Your task to perform on an android device: Search for rayovac triple a on bestbuy, select the first entry, and add it to the cart. Image 0: 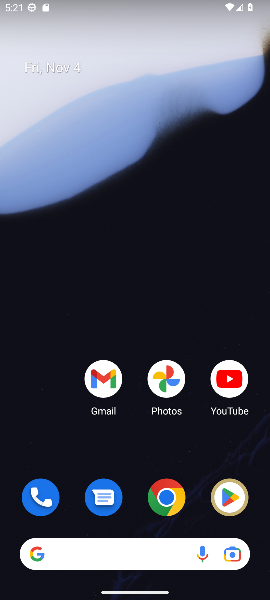
Step 0: click (167, 508)
Your task to perform on an android device: Search for rayovac triple a on bestbuy, select the first entry, and add it to the cart. Image 1: 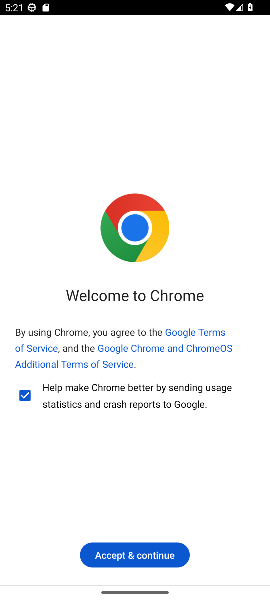
Step 1: click (131, 561)
Your task to perform on an android device: Search for rayovac triple a on bestbuy, select the first entry, and add it to the cart. Image 2: 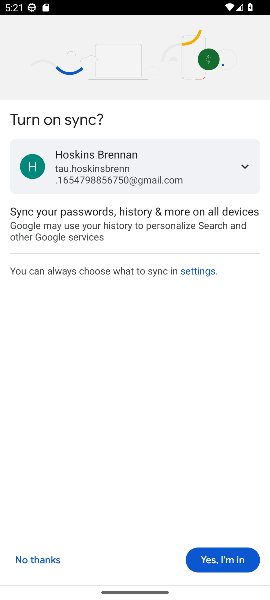
Step 2: click (210, 561)
Your task to perform on an android device: Search for rayovac triple a on bestbuy, select the first entry, and add it to the cart. Image 3: 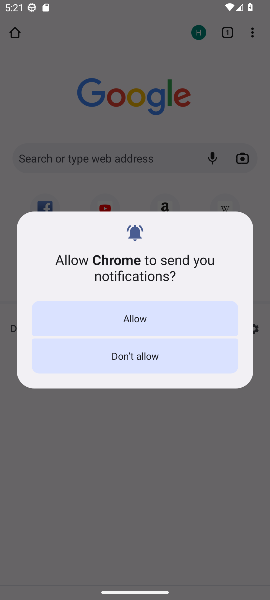
Step 3: click (117, 360)
Your task to perform on an android device: Search for rayovac triple a on bestbuy, select the first entry, and add it to the cart. Image 4: 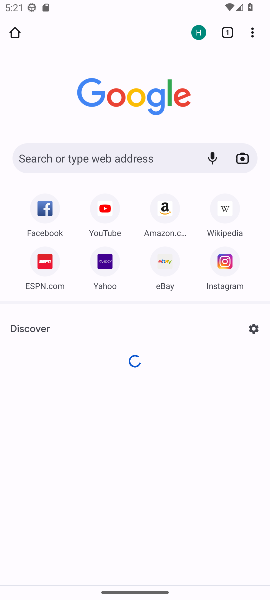
Step 4: click (90, 166)
Your task to perform on an android device: Search for rayovac triple a on bestbuy, select the first entry, and add it to the cart. Image 5: 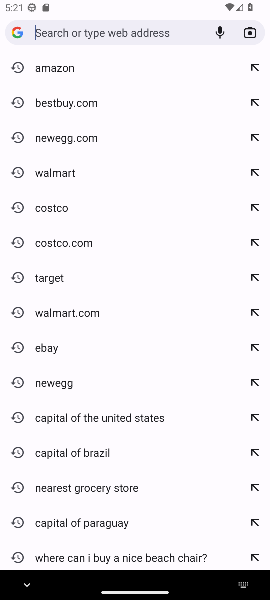
Step 5: click (57, 107)
Your task to perform on an android device: Search for rayovac triple a on bestbuy, select the first entry, and add it to the cart. Image 6: 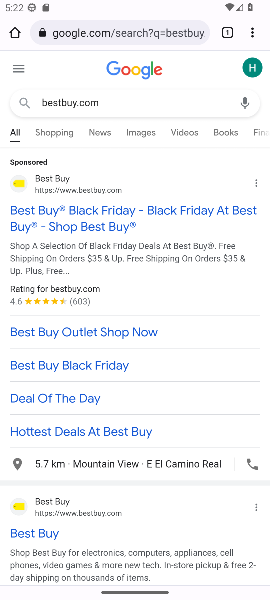
Step 6: drag from (115, 314) to (125, 192)
Your task to perform on an android device: Search for rayovac triple a on bestbuy, select the first entry, and add it to the cart. Image 7: 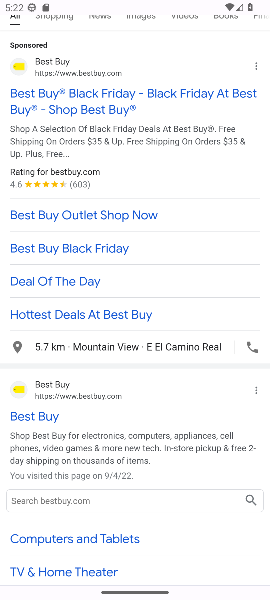
Step 7: click (20, 462)
Your task to perform on an android device: Search for rayovac triple a on bestbuy, select the first entry, and add it to the cart. Image 8: 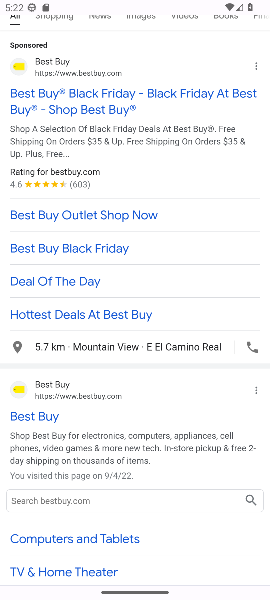
Step 8: click (55, 392)
Your task to perform on an android device: Search for rayovac triple a on bestbuy, select the first entry, and add it to the cart. Image 9: 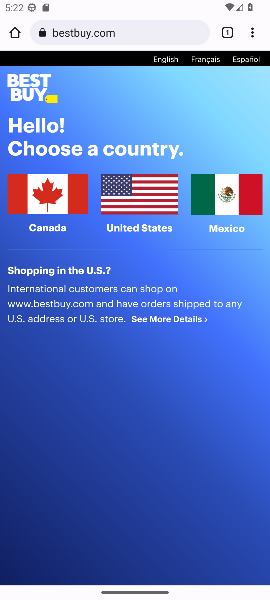
Step 9: click (158, 197)
Your task to perform on an android device: Search for rayovac triple a on bestbuy, select the first entry, and add it to the cart. Image 10: 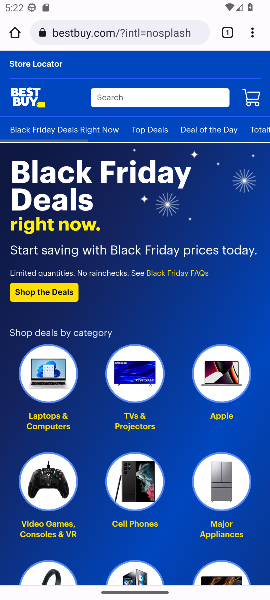
Step 10: click (136, 96)
Your task to perform on an android device: Search for rayovac triple a on bestbuy, select the first entry, and add it to the cart. Image 11: 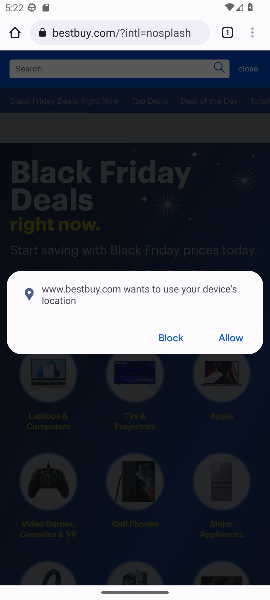
Step 11: type " rayovac triple a"
Your task to perform on an android device: Search for rayovac triple a on bestbuy, select the first entry, and add it to the cart. Image 12: 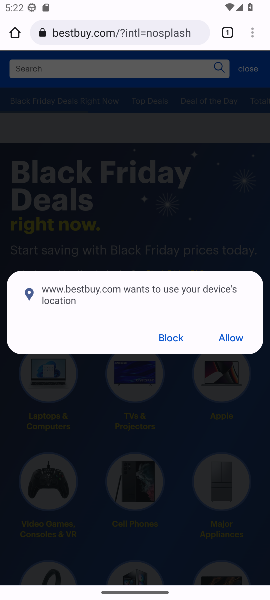
Step 12: click (175, 333)
Your task to perform on an android device: Search for rayovac triple a on bestbuy, select the first entry, and add it to the cart. Image 13: 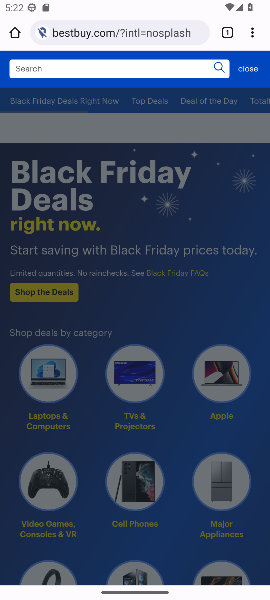
Step 13: click (37, 70)
Your task to perform on an android device: Search for rayovac triple a on bestbuy, select the first entry, and add it to the cart. Image 14: 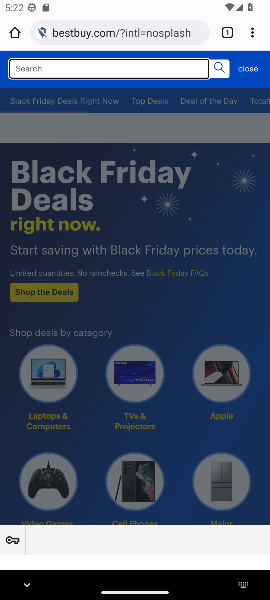
Step 14: type " rayovac triple a"
Your task to perform on an android device: Search for rayovac triple a on bestbuy, select the first entry, and add it to the cart. Image 15: 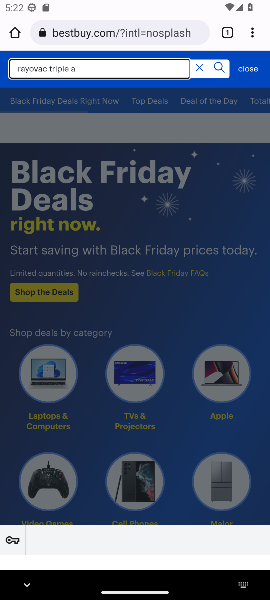
Step 15: click (220, 62)
Your task to perform on an android device: Search for rayovac triple a on bestbuy, select the first entry, and add it to the cart. Image 16: 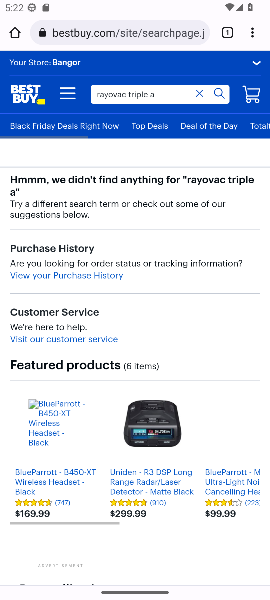
Step 16: task complete